Your task to perform on an android device: toggle wifi Image 0: 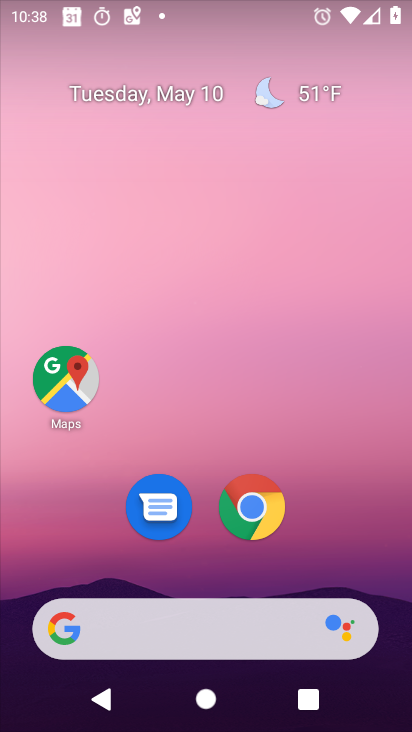
Step 0: drag from (194, 14) to (160, 527)
Your task to perform on an android device: toggle wifi Image 1: 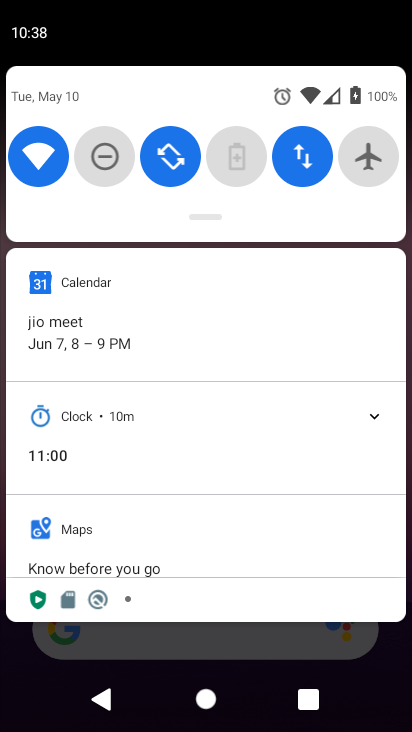
Step 1: click (49, 163)
Your task to perform on an android device: toggle wifi Image 2: 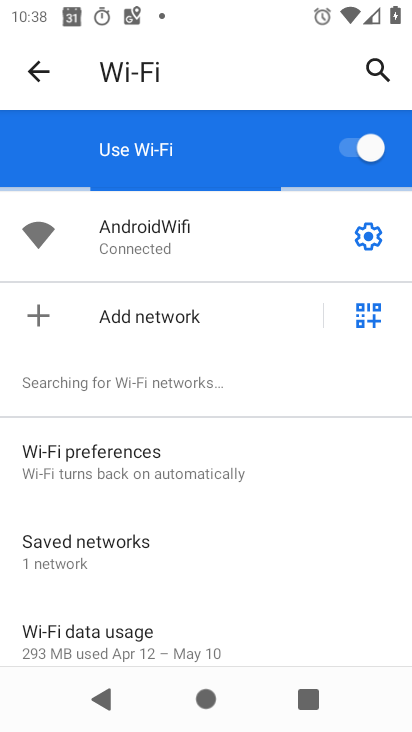
Step 2: click (362, 133)
Your task to perform on an android device: toggle wifi Image 3: 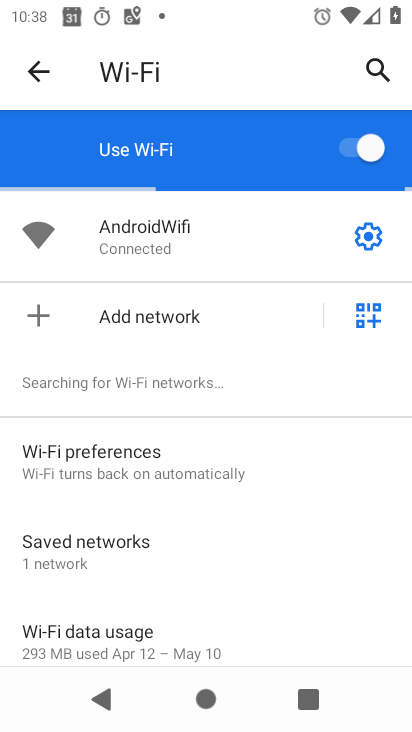
Step 3: click (362, 133)
Your task to perform on an android device: toggle wifi Image 4: 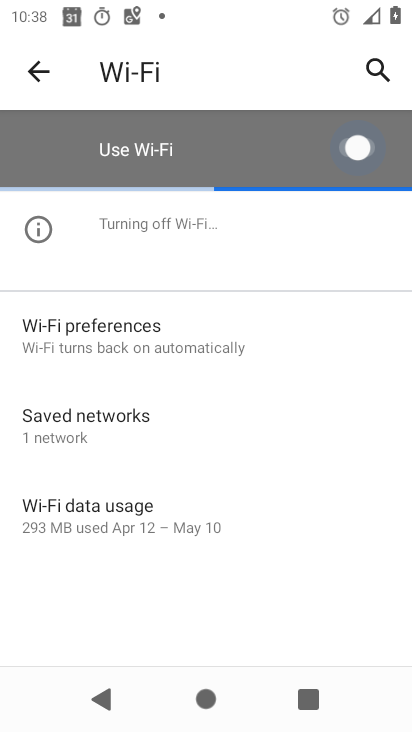
Step 4: click (362, 133)
Your task to perform on an android device: toggle wifi Image 5: 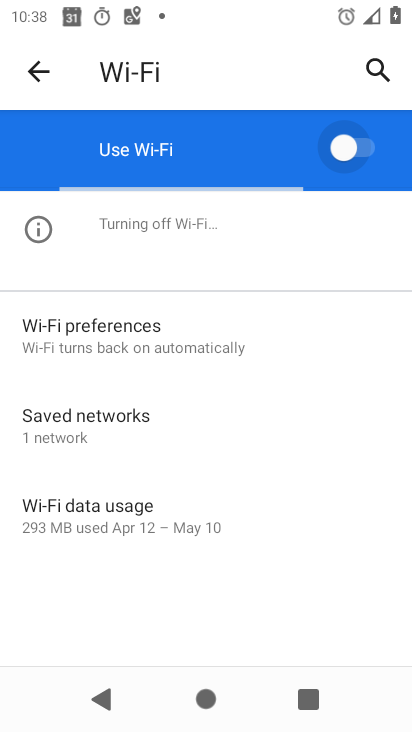
Step 5: click (362, 133)
Your task to perform on an android device: toggle wifi Image 6: 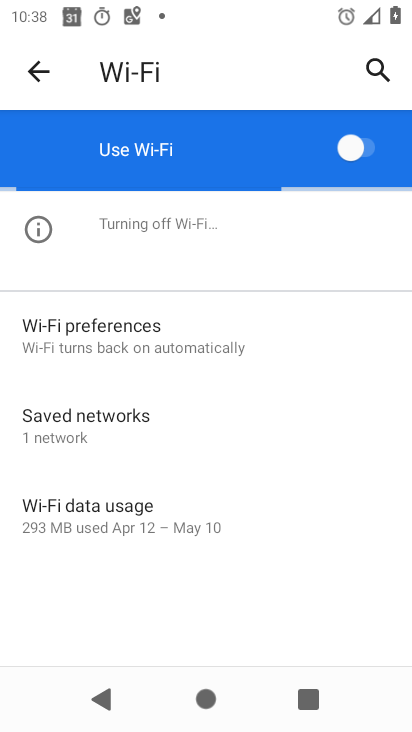
Step 6: click (362, 133)
Your task to perform on an android device: toggle wifi Image 7: 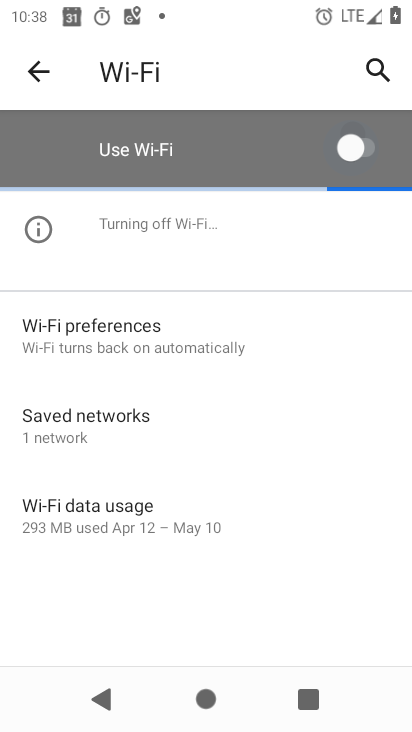
Step 7: click (362, 133)
Your task to perform on an android device: toggle wifi Image 8: 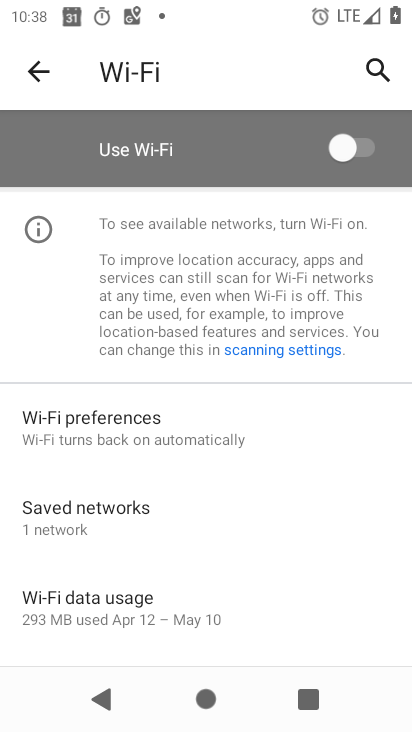
Step 8: click (365, 145)
Your task to perform on an android device: toggle wifi Image 9: 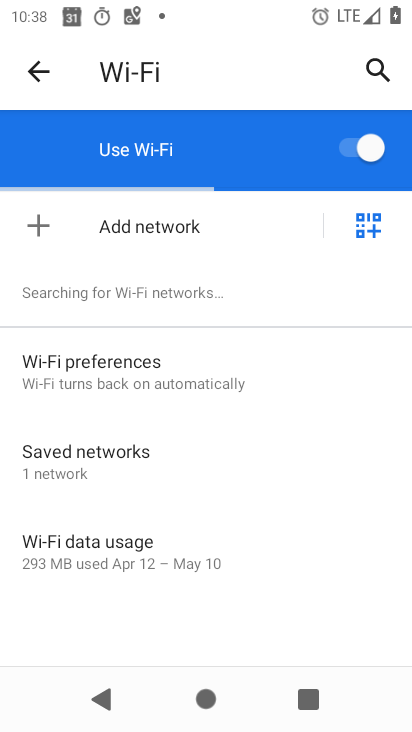
Step 9: task complete